Your task to perform on an android device: see creations saved in the google photos Image 0: 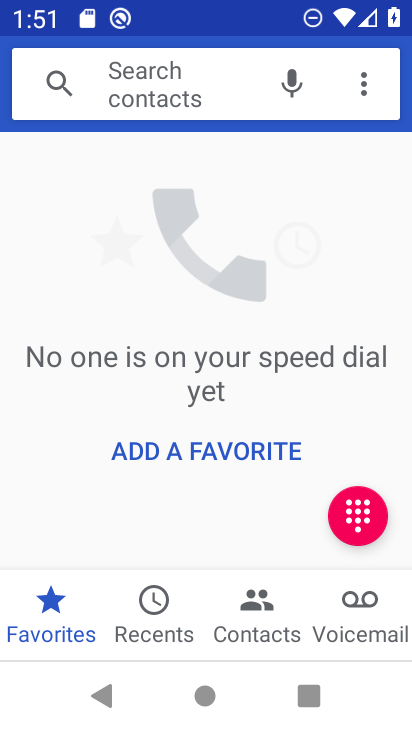
Step 0: press home button
Your task to perform on an android device: see creations saved in the google photos Image 1: 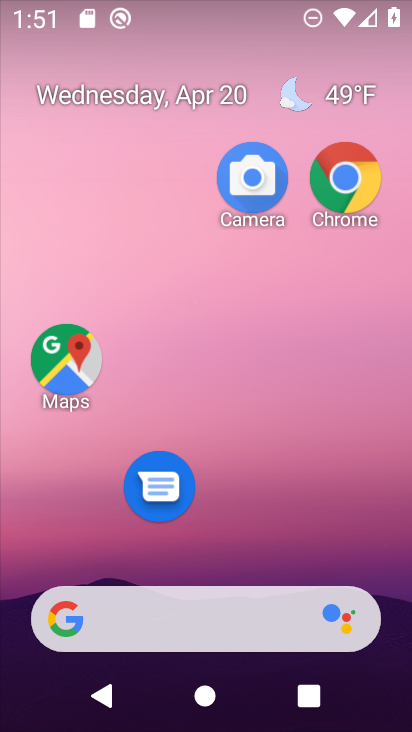
Step 1: drag from (280, 670) to (328, 173)
Your task to perform on an android device: see creations saved in the google photos Image 2: 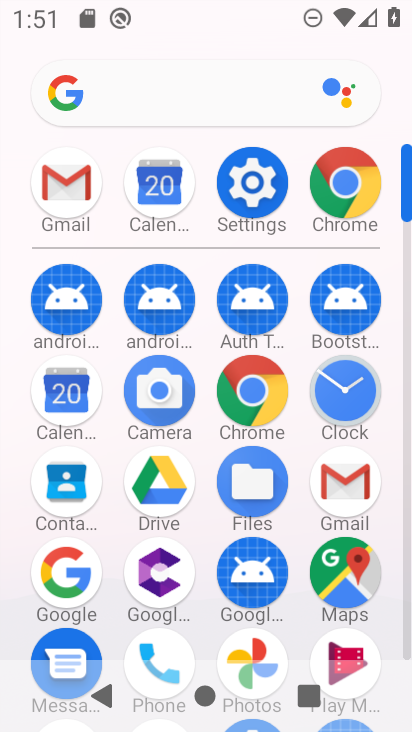
Step 2: drag from (292, 529) to (290, 353)
Your task to perform on an android device: see creations saved in the google photos Image 3: 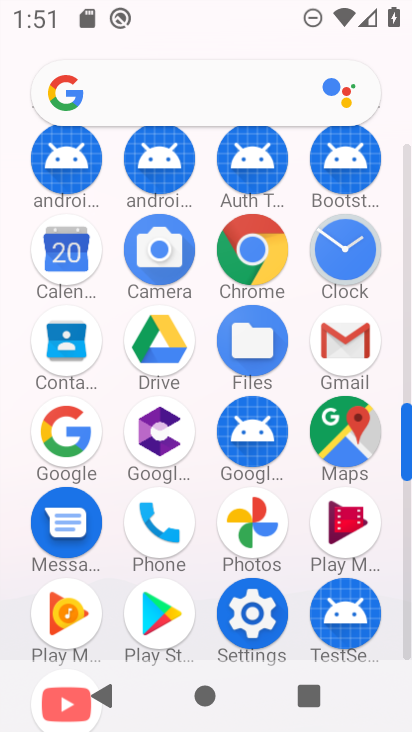
Step 3: click (257, 518)
Your task to perform on an android device: see creations saved in the google photos Image 4: 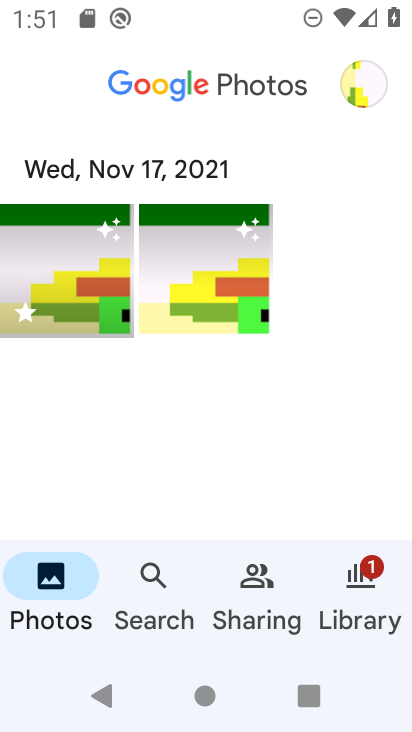
Step 4: click (190, 255)
Your task to perform on an android device: see creations saved in the google photos Image 5: 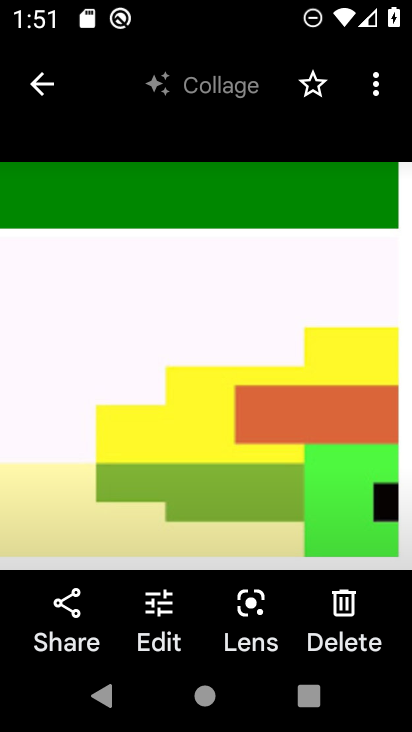
Step 5: click (363, 90)
Your task to perform on an android device: see creations saved in the google photos Image 6: 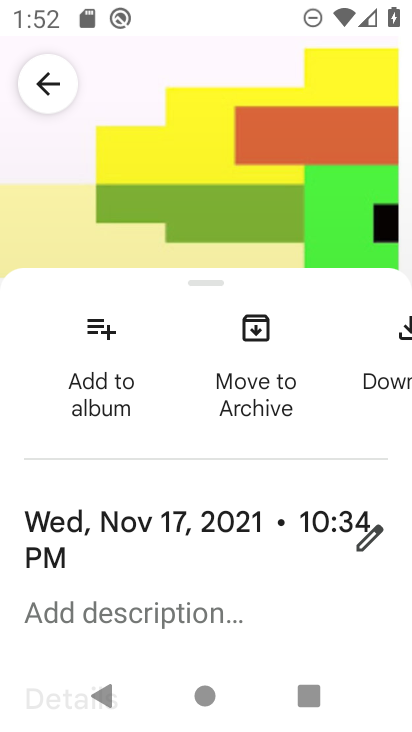
Step 6: task complete